Your task to perform on an android device: Go to Yahoo.com Image 0: 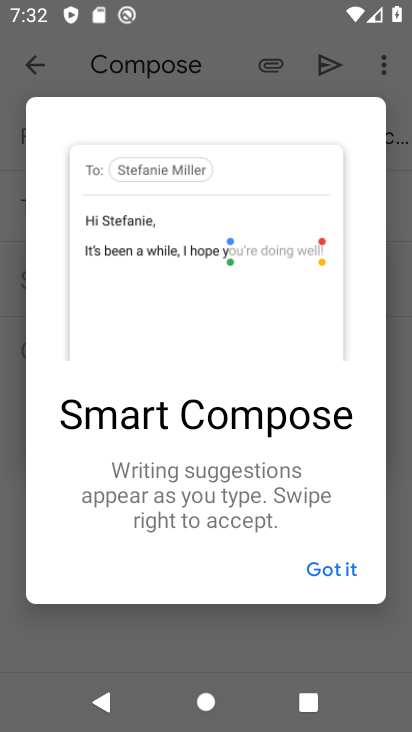
Step 0: press home button
Your task to perform on an android device: Go to Yahoo.com Image 1: 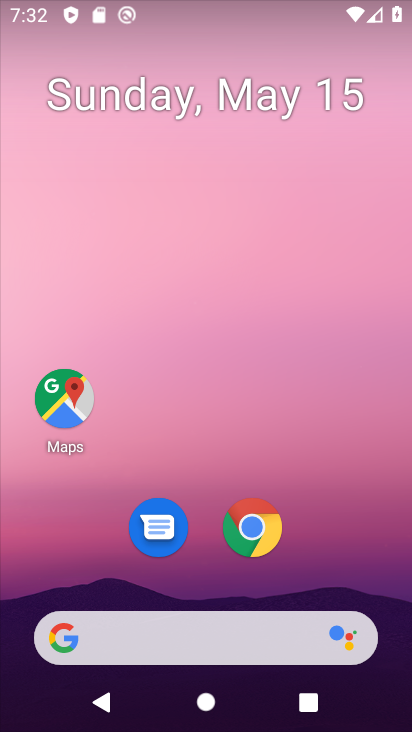
Step 1: click (255, 531)
Your task to perform on an android device: Go to Yahoo.com Image 2: 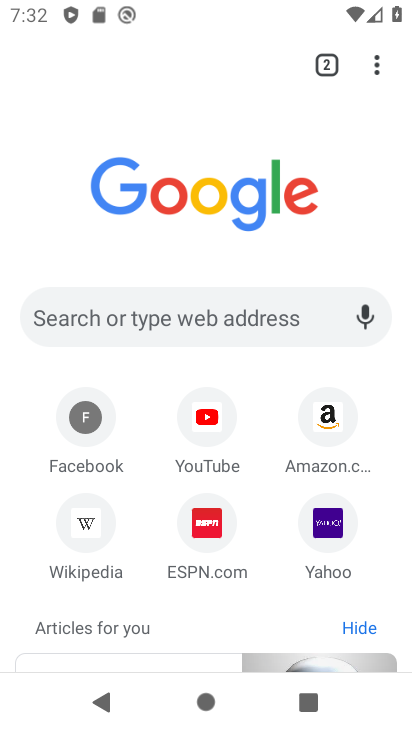
Step 2: click (327, 520)
Your task to perform on an android device: Go to Yahoo.com Image 3: 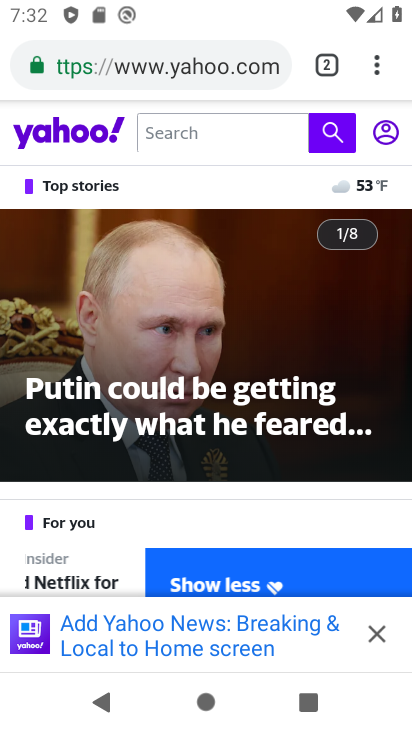
Step 3: task complete